Your task to perform on an android device: move a message to another label in the gmail app Image 0: 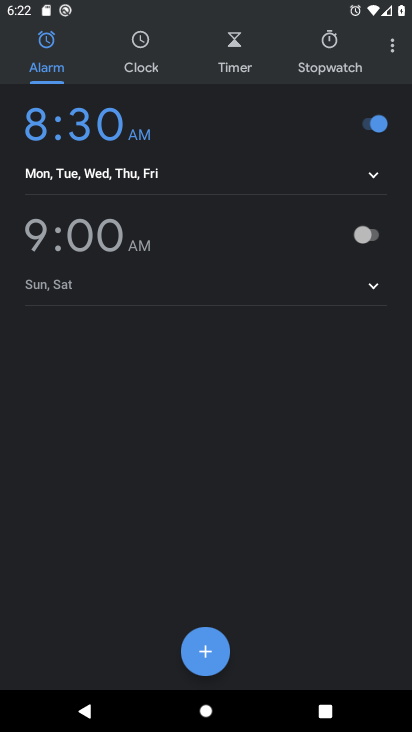
Step 0: press home button
Your task to perform on an android device: move a message to another label in the gmail app Image 1: 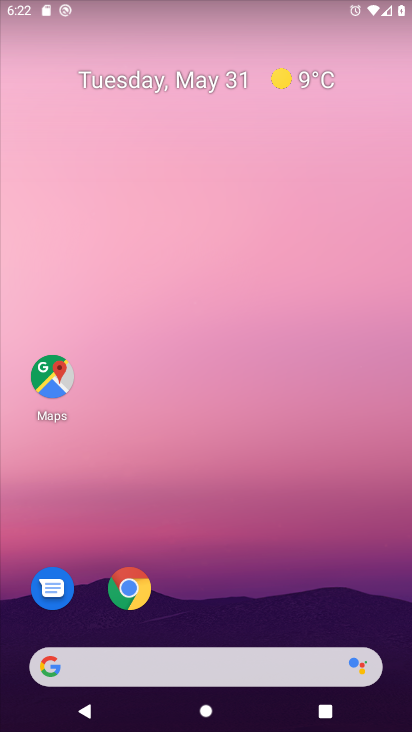
Step 1: drag from (190, 618) to (255, 203)
Your task to perform on an android device: move a message to another label in the gmail app Image 2: 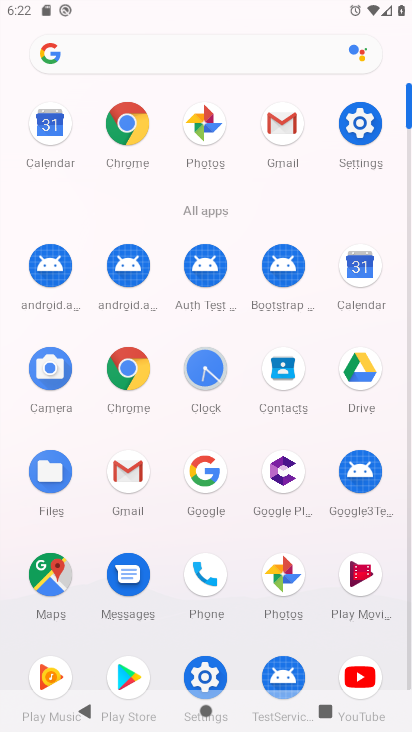
Step 2: click (276, 131)
Your task to perform on an android device: move a message to another label in the gmail app Image 3: 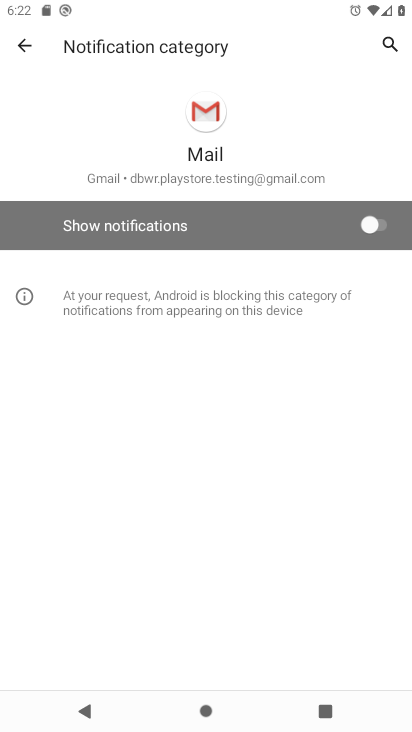
Step 3: click (32, 48)
Your task to perform on an android device: move a message to another label in the gmail app Image 4: 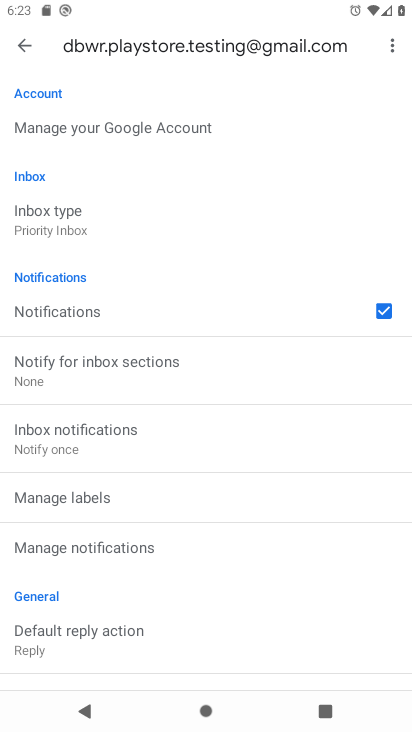
Step 4: click (21, 44)
Your task to perform on an android device: move a message to another label in the gmail app Image 5: 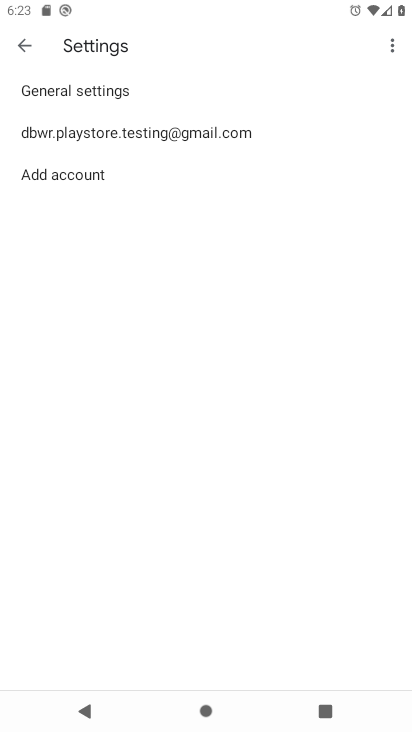
Step 5: click (23, 50)
Your task to perform on an android device: move a message to another label in the gmail app Image 6: 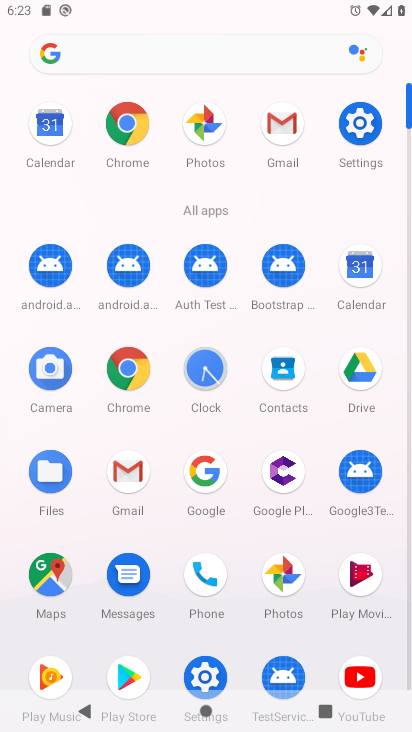
Step 6: click (275, 141)
Your task to perform on an android device: move a message to another label in the gmail app Image 7: 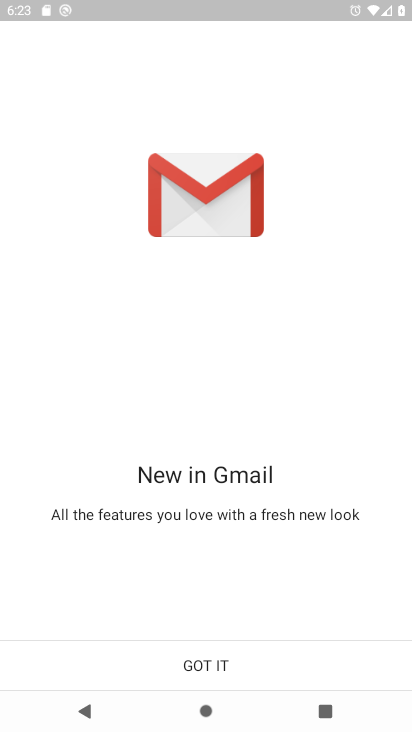
Step 7: click (213, 654)
Your task to perform on an android device: move a message to another label in the gmail app Image 8: 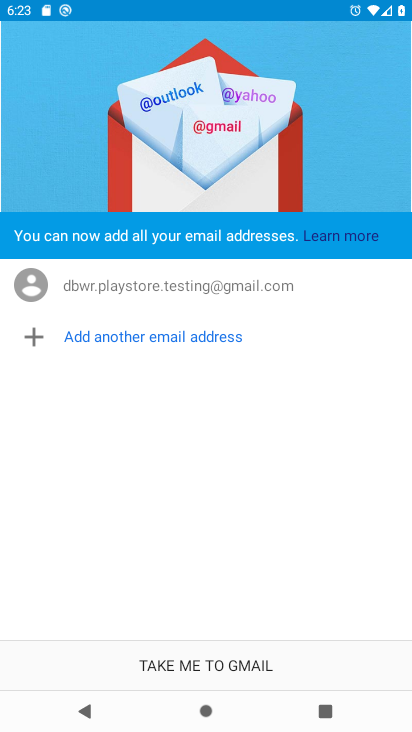
Step 8: click (213, 654)
Your task to perform on an android device: move a message to another label in the gmail app Image 9: 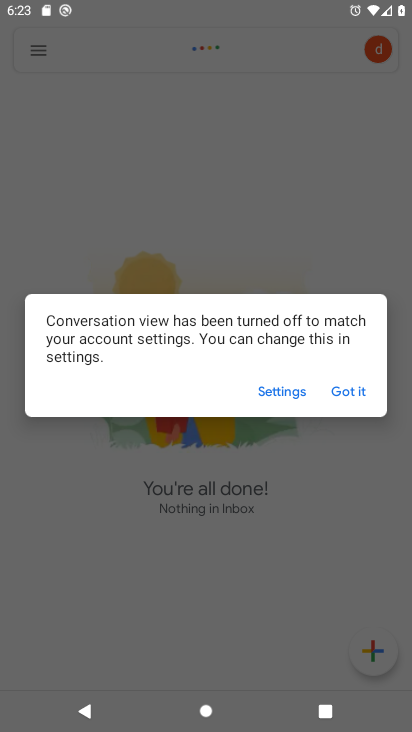
Step 9: click (361, 392)
Your task to perform on an android device: move a message to another label in the gmail app Image 10: 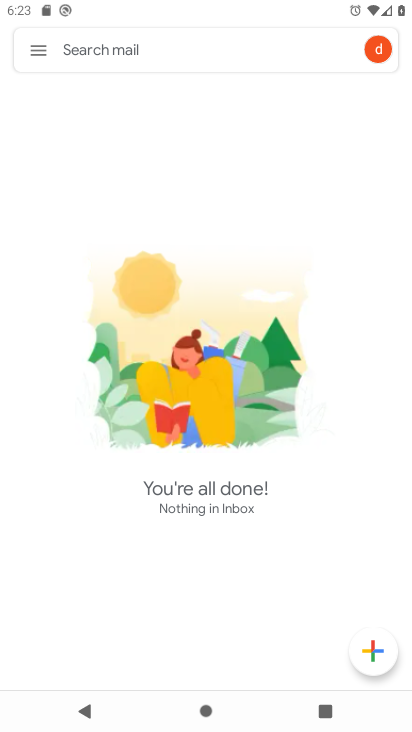
Step 10: click (30, 53)
Your task to perform on an android device: move a message to another label in the gmail app Image 11: 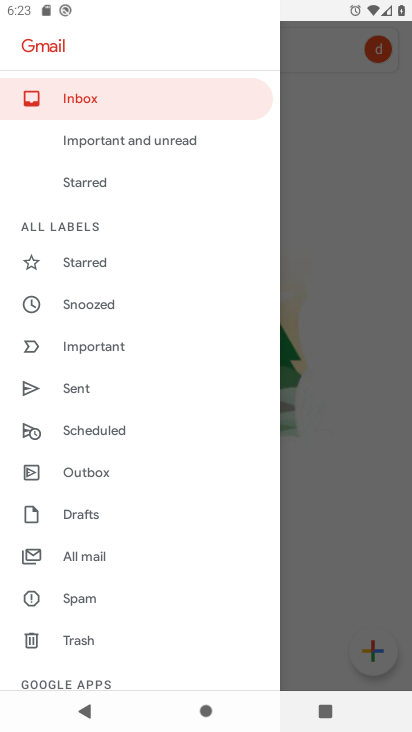
Step 11: click (86, 556)
Your task to perform on an android device: move a message to another label in the gmail app Image 12: 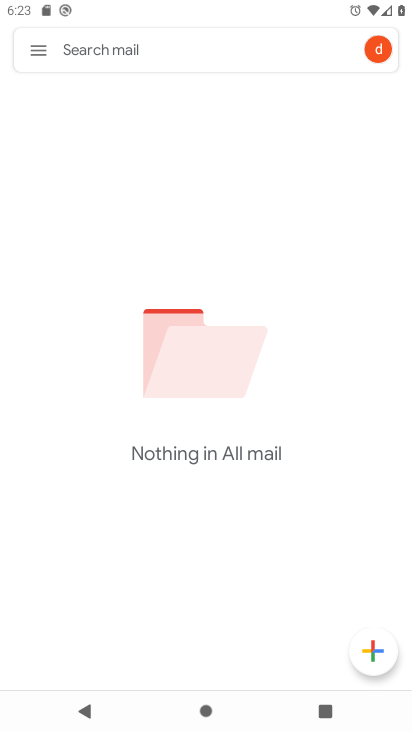
Step 12: task complete